Your task to perform on an android device: check google app version Image 0: 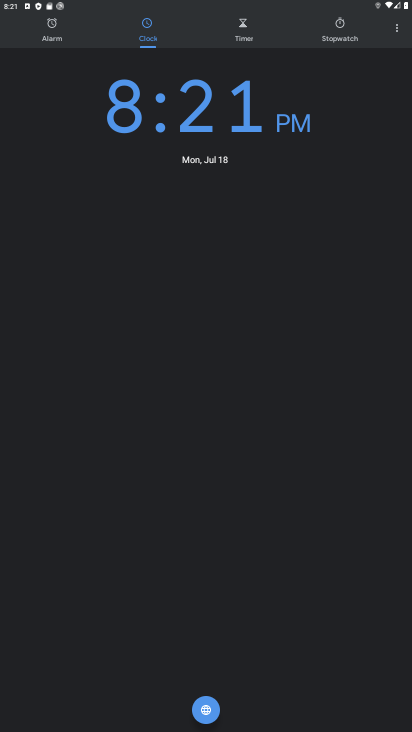
Step 0: press home button
Your task to perform on an android device: check google app version Image 1: 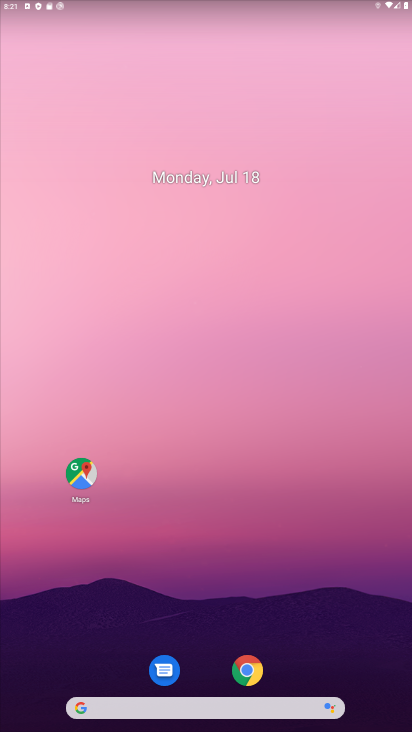
Step 1: click (74, 715)
Your task to perform on an android device: check google app version Image 2: 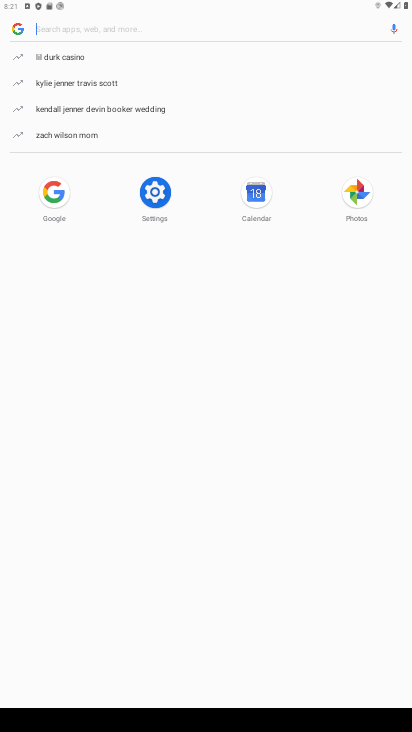
Step 2: click (16, 29)
Your task to perform on an android device: check google app version Image 3: 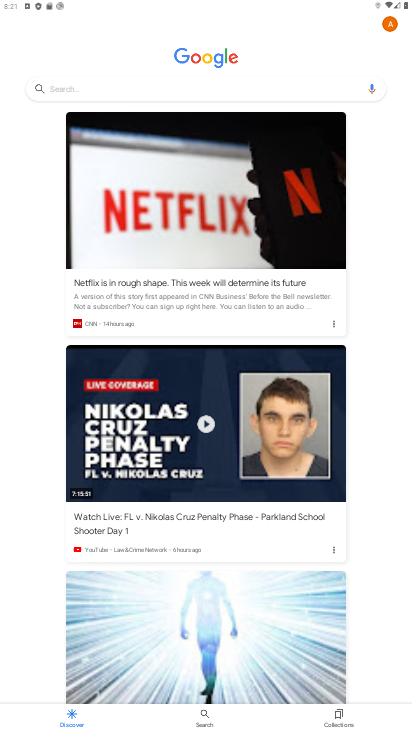
Step 3: click (392, 24)
Your task to perform on an android device: check google app version Image 4: 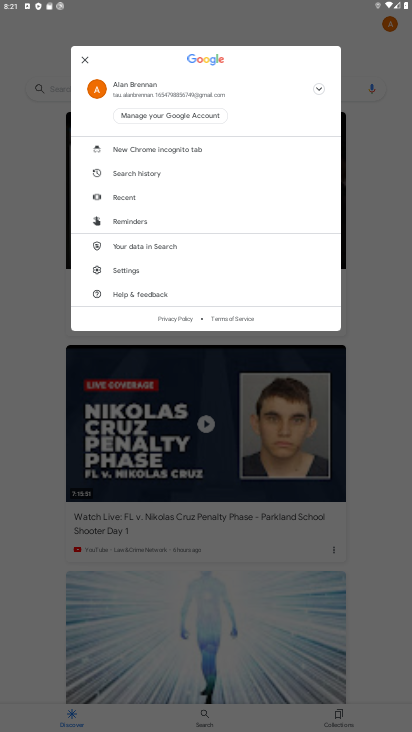
Step 4: click (122, 265)
Your task to perform on an android device: check google app version Image 5: 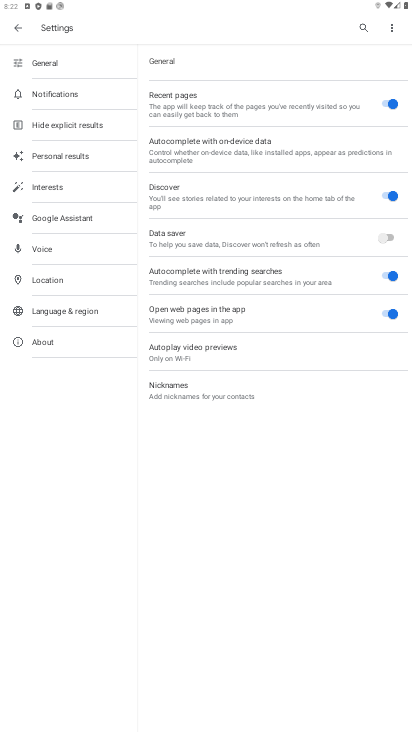
Step 5: click (38, 336)
Your task to perform on an android device: check google app version Image 6: 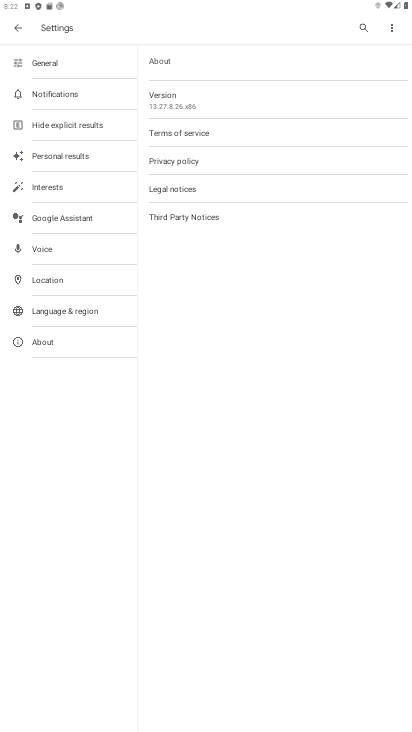
Step 6: task complete